Your task to perform on an android device: Clear all items from cart on bestbuy.com. Add jbl charge 4 to the cart on bestbuy.com, then select checkout. Image 0: 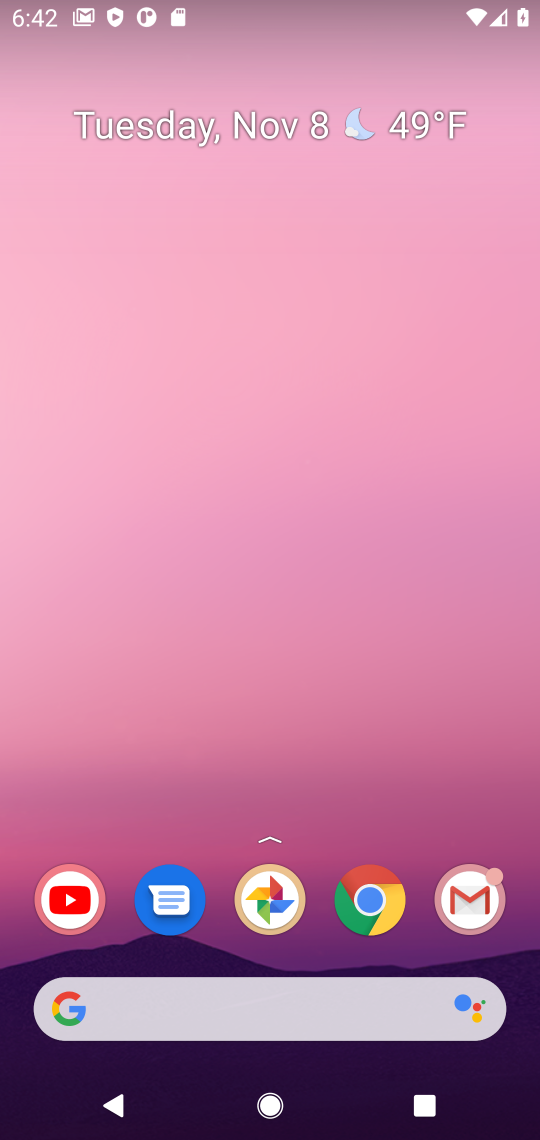
Step 0: click (369, 926)
Your task to perform on an android device: Clear all items from cart on bestbuy.com. Add jbl charge 4 to the cart on bestbuy.com, then select checkout. Image 1: 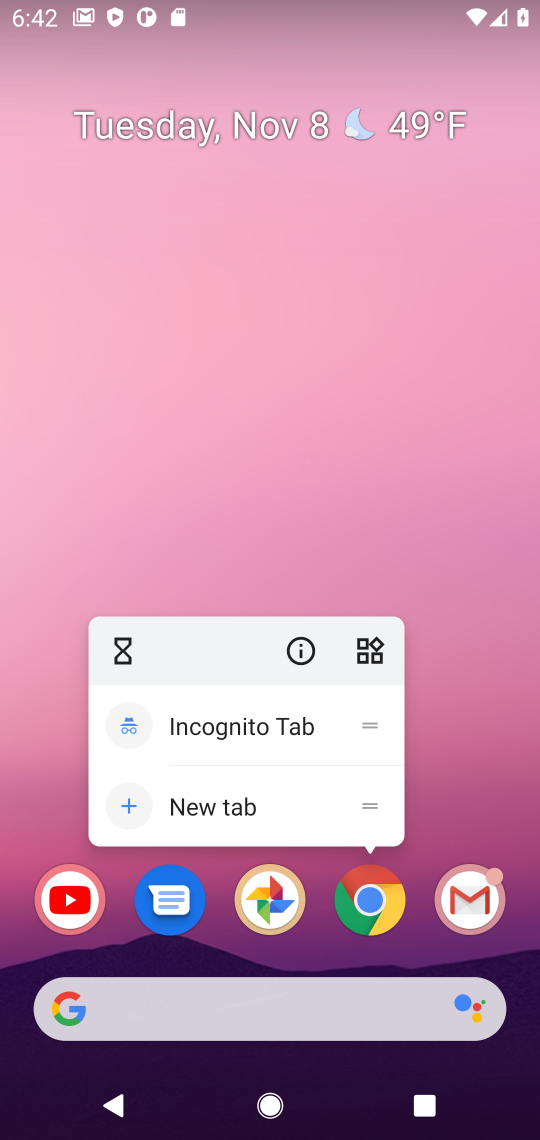
Step 1: click (379, 907)
Your task to perform on an android device: Clear all items from cart on bestbuy.com. Add jbl charge 4 to the cart on bestbuy.com, then select checkout. Image 2: 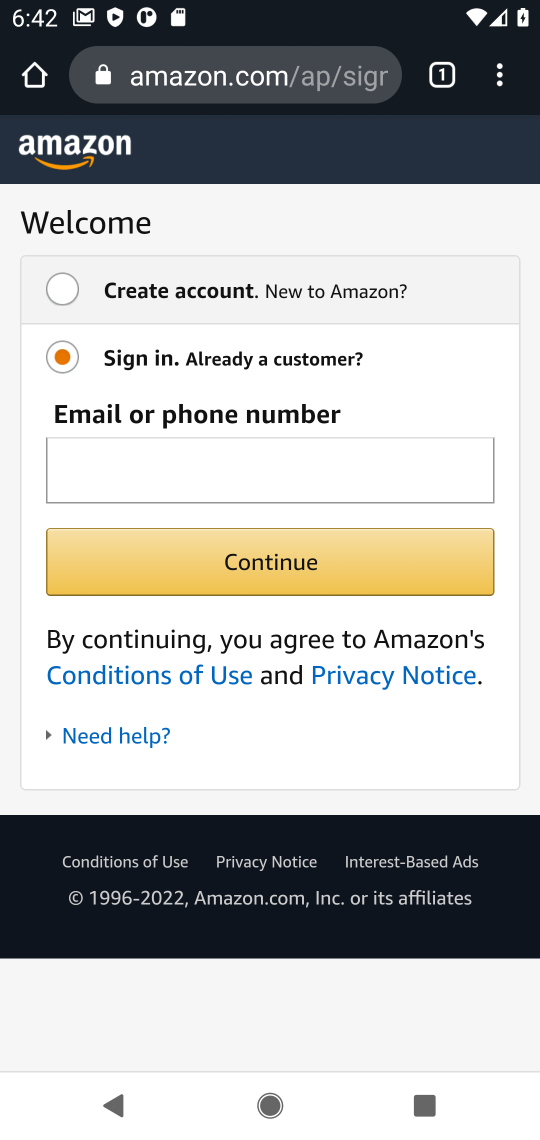
Step 2: click (335, 84)
Your task to perform on an android device: Clear all items from cart on bestbuy.com. Add jbl charge 4 to the cart on bestbuy.com, then select checkout. Image 3: 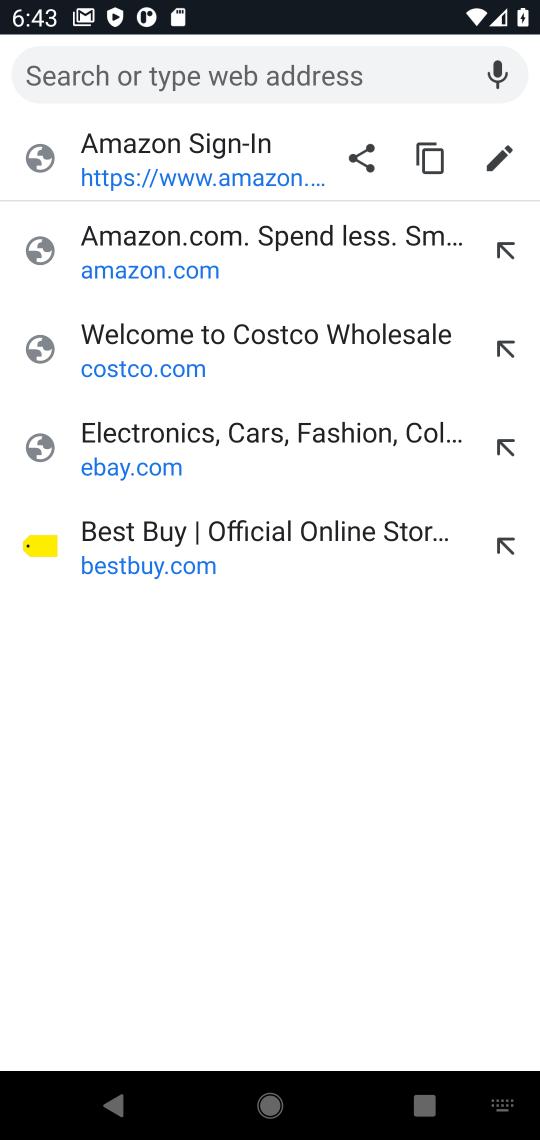
Step 3: type "bestbuy.com"
Your task to perform on an android device: Clear all items from cart on bestbuy.com. Add jbl charge 4 to the cart on bestbuy.com, then select checkout. Image 4: 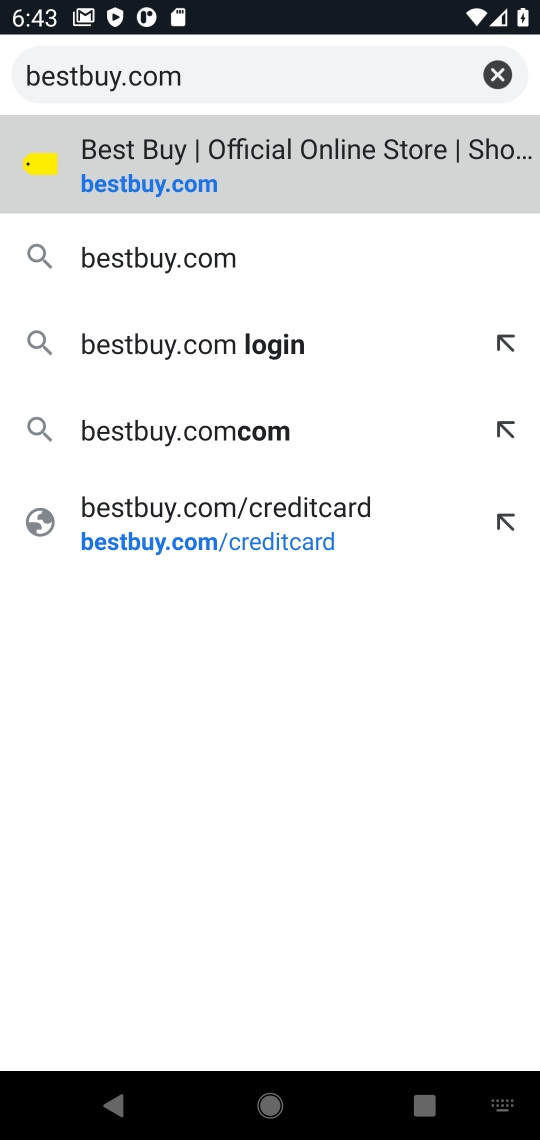
Step 4: press enter
Your task to perform on an android device: Clear all items from cart on bestbuy.com. Add jbl charge 4 to the cart on bestbuy.com, then select checkout. Image 5: 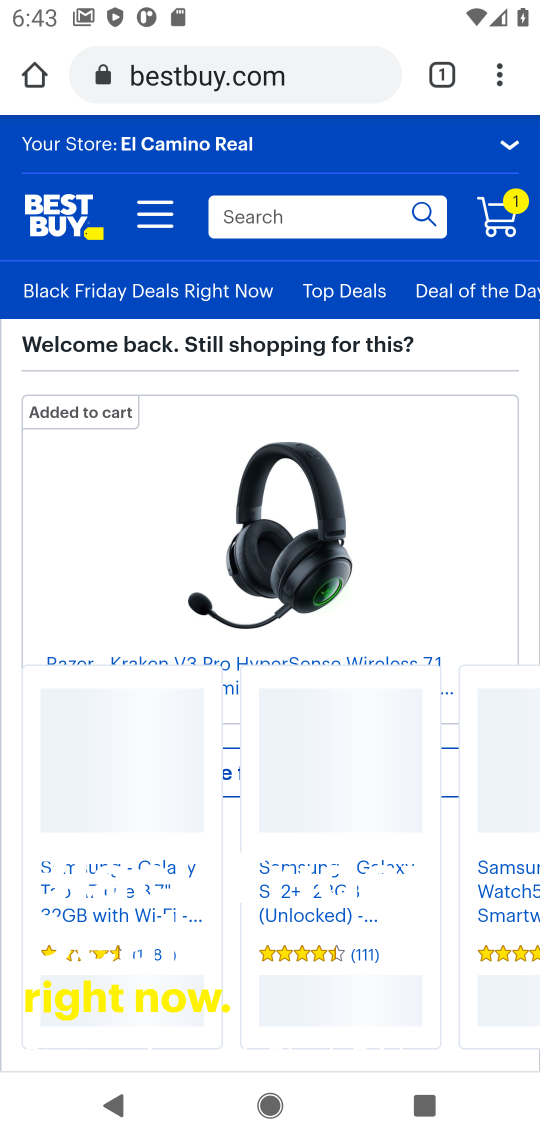
Step 5: click (513, 216)
Your task to perform on an android device: Clear all items from cart on bestbuy.com. Add jbl charge 4 to the cart on bestbuy.com, then select checkout. Image 6: 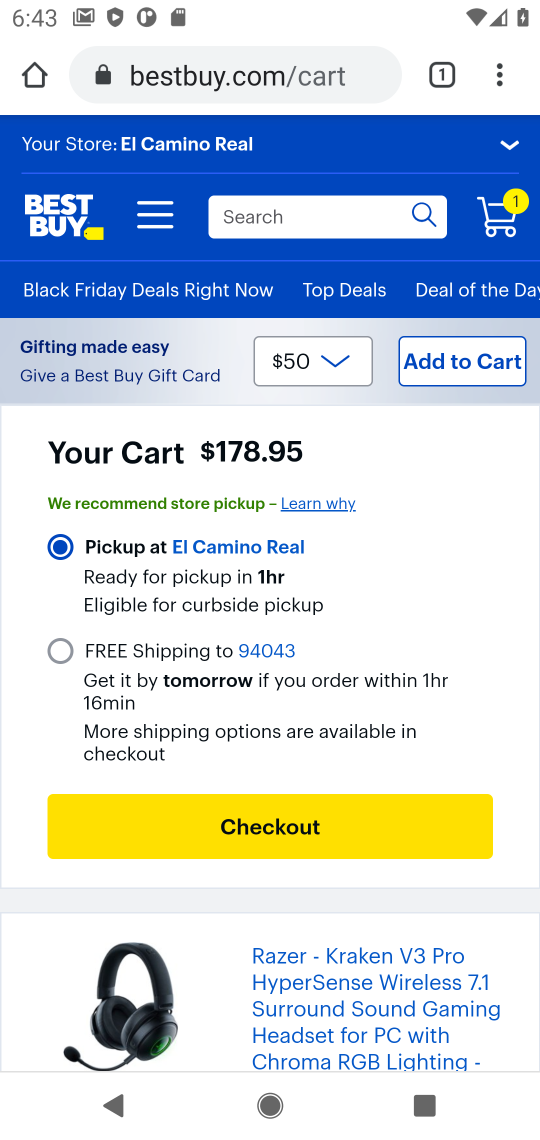
Step 6: drag from (197, 961) to (127, 575)
Your task to perform on an android device: Clear all items from cart on bestbuy.com. Add jbl charge 4 to the cart on bestbuy.com, then select checkout. Image 7: 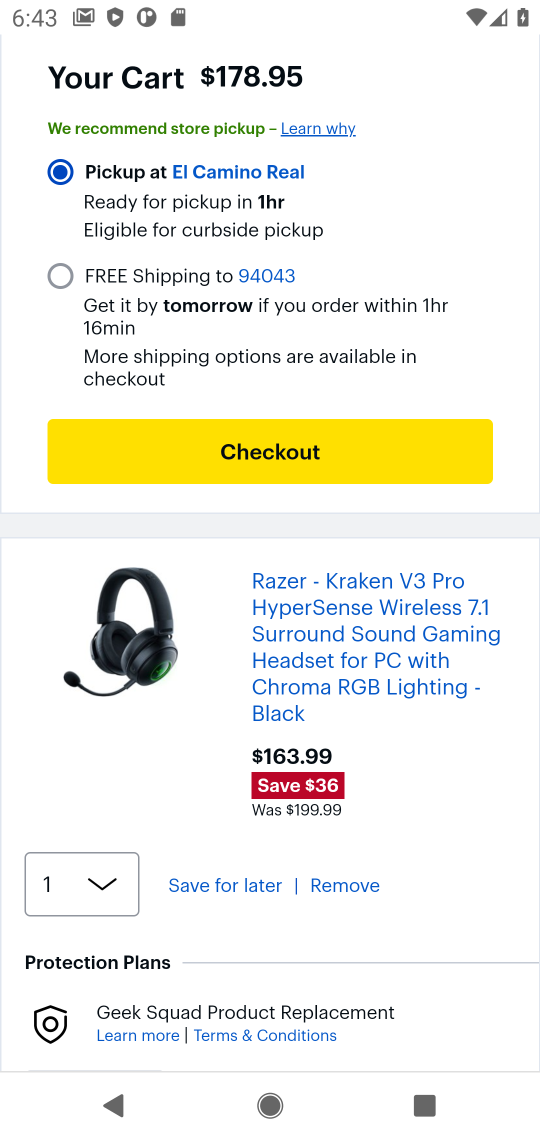
Step 7: click (355, 891)
Your task to perform on an android device: Clear all items from cart on bestbuy.com. Add jbl charge 4 to the cart on bestbuy.com, then select checkout. Image 8: 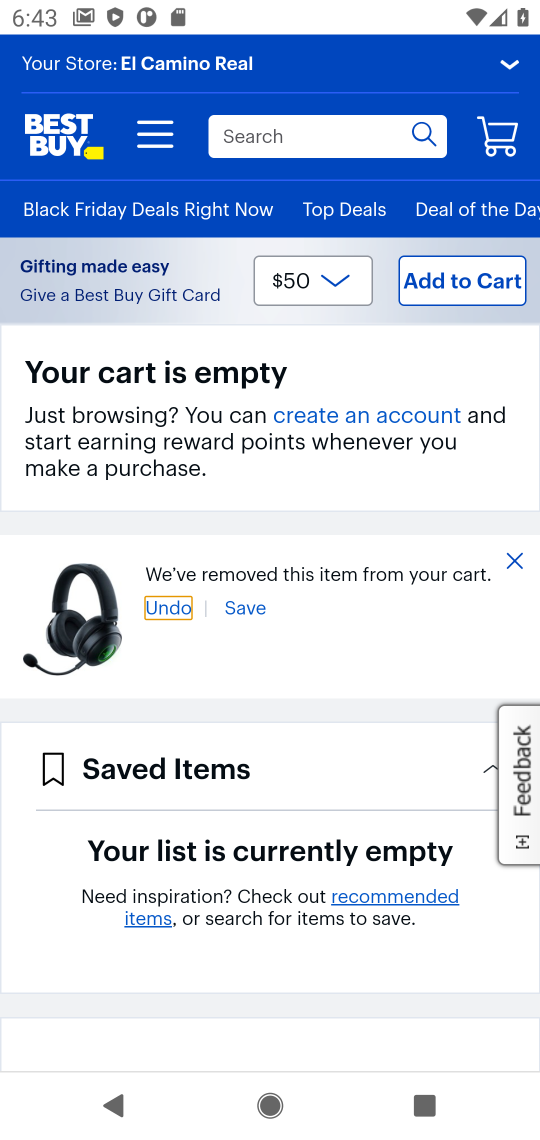
Step 8: drag from (484, 919) to (456, 492)
Your task to perform on an android device: Clear all items from cart on bestbuy.com. Add jbl charge 4 to the cart on bestbuy.com, then select checkout. Image 9: 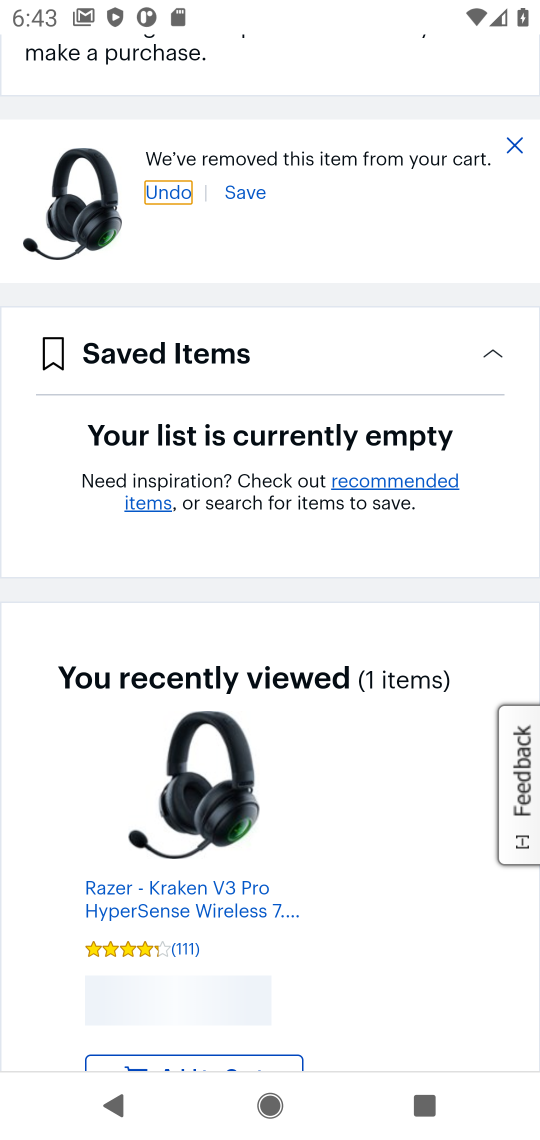
Step 9: drag from (453, 497) to (440, 899)
Your task to perform on an android device: Clear all items from cart on bestbuy.com. Add jbl charge 4 to the cart on bestbuy.com, then select checkout. Image 10: 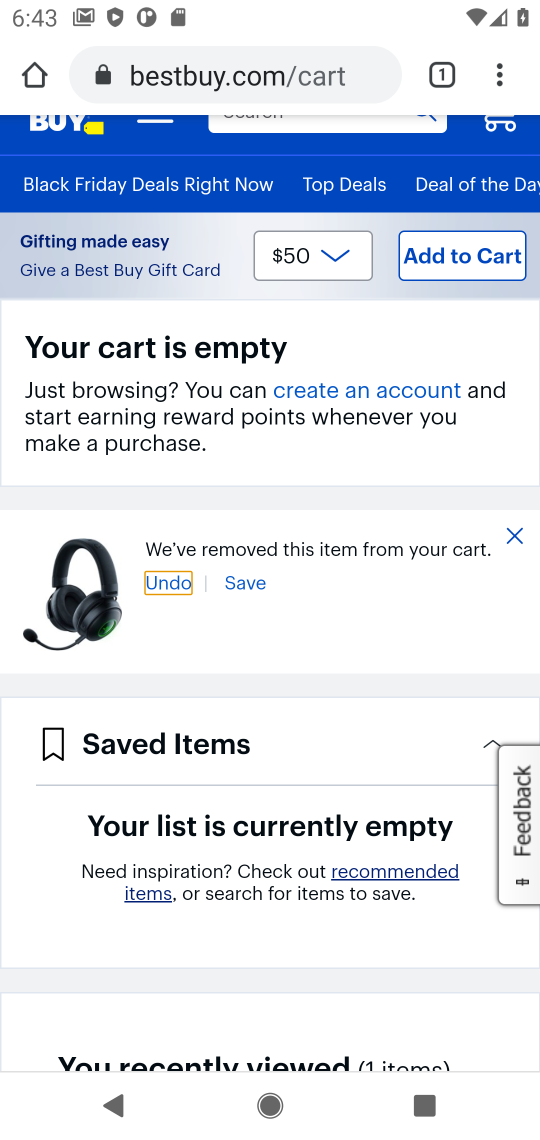
Step 10: drag from (296, 339) to (296, 473)
Your task to perform on an android device: Clear all items from cart on bestbuy.com. Add jbl charge 4 to the cart on bestbuy.com, then select checkout. Image 11: 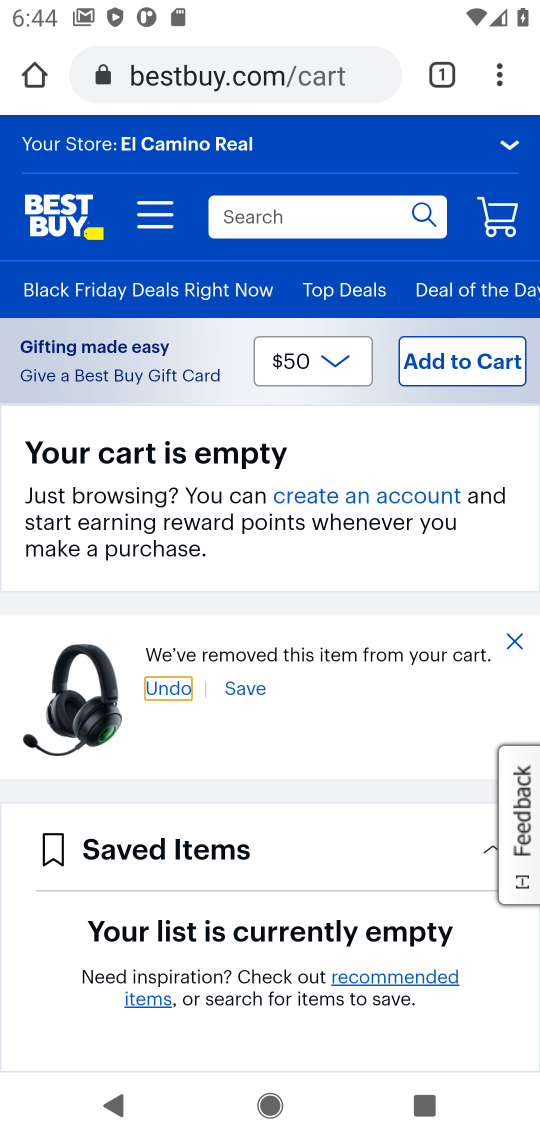
Step 11: click (321, 206)
Your task to perform on an android device: Clear all items from cart on bestbuy.com. Add jbl charge 4 to the cart on bestbuy.com, then select checkout. Image 12: 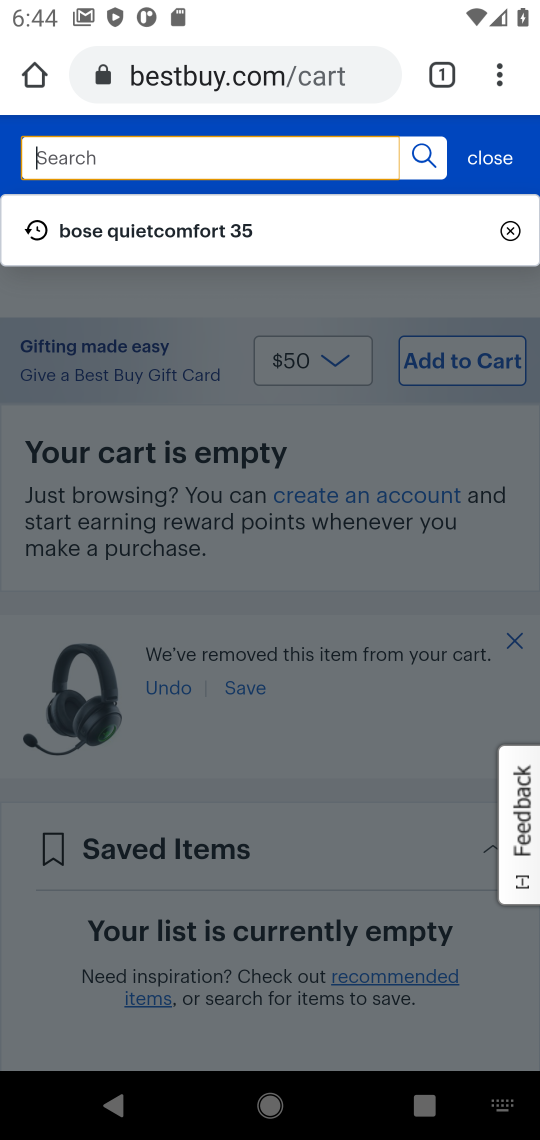
Step 12: type "jbl charge 4"
Your task to perform on an android device: Clear all items from cart on bestbuy.com. Add jbl charge 4 to the cart on bestbuy.com, then select checkout. Image 13: 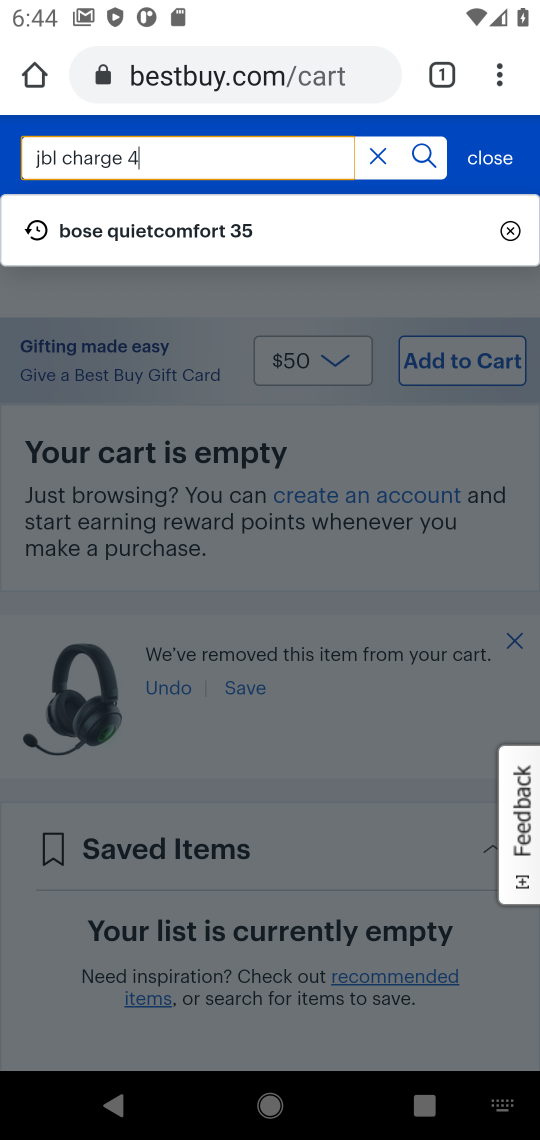
Step 13: type ""
Your task to perform on an android device: Clear all items from cart on bestbuy.com. Add jbl charge 4 to the cart on bestbuy.com, then select checkout. Image 14: 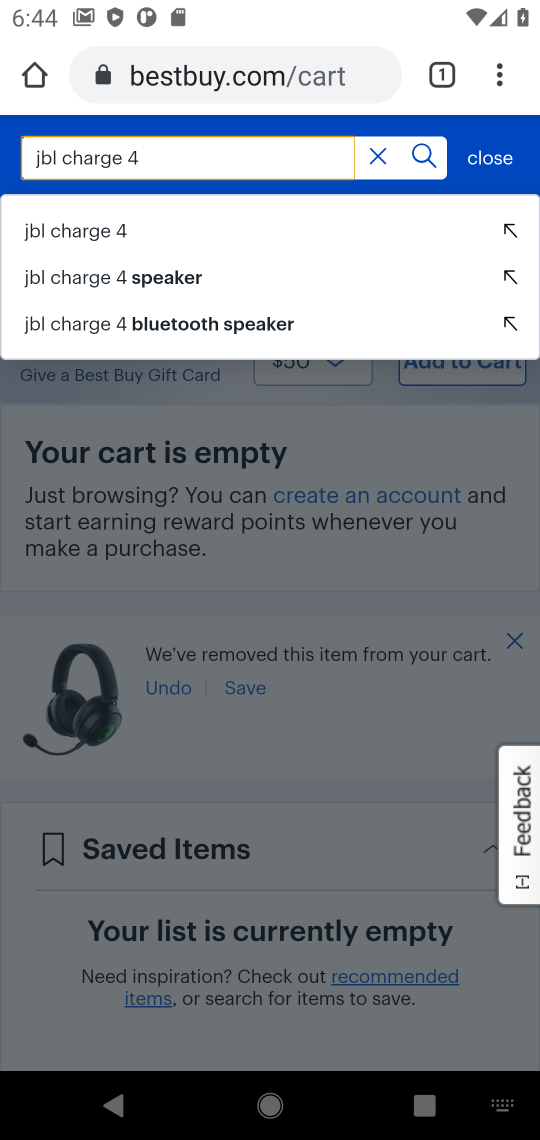
Step 14: press enter
Your task to perform on an android device: Clear all items from cart on bestbuy.com. Add jbl charge 4 to the cart on bestbuy.com, then select checkout. Image 15: 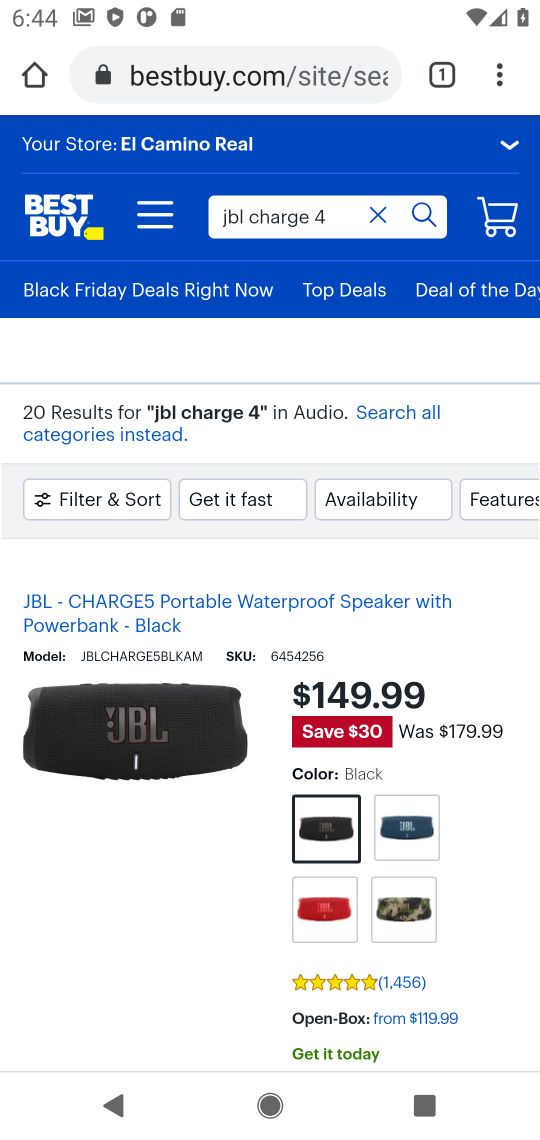
Step 15: drag from (162, 863) to (168, 749)
Your task to perform on an android device: Clear all items from cart on bestbuy.com. Add jbl charge 4 to the cart on bestbuy.com, then select checkout. Image 16: 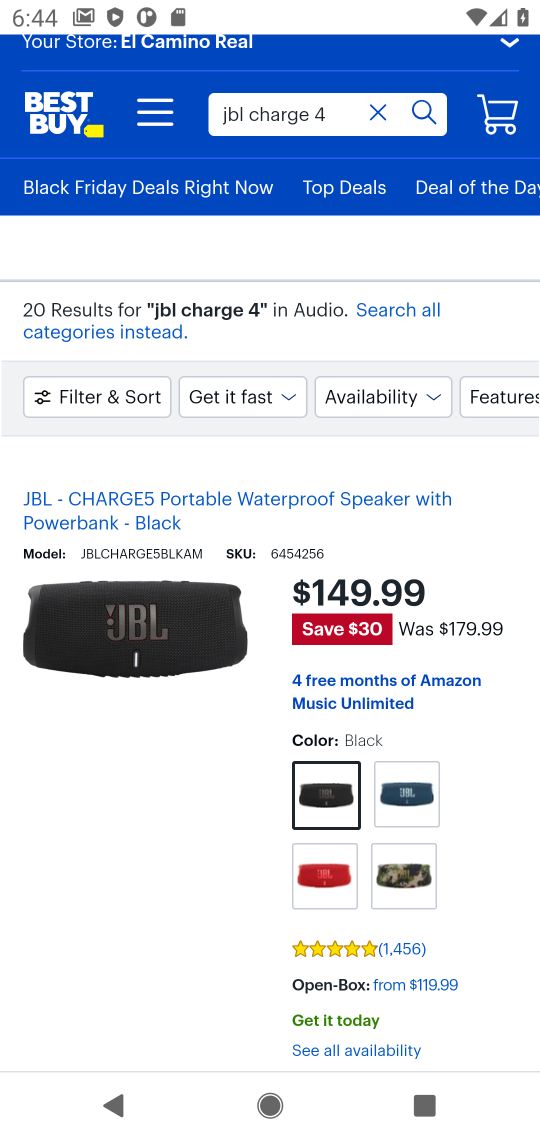
Step 16: drag from (156, 695) to (69, 894)
Your task to perform on an android device: Clear all items from cart on bestbuy.com. Add jbl charge 4 to the cart on bestbuy.com, then select checkout. Image 17: 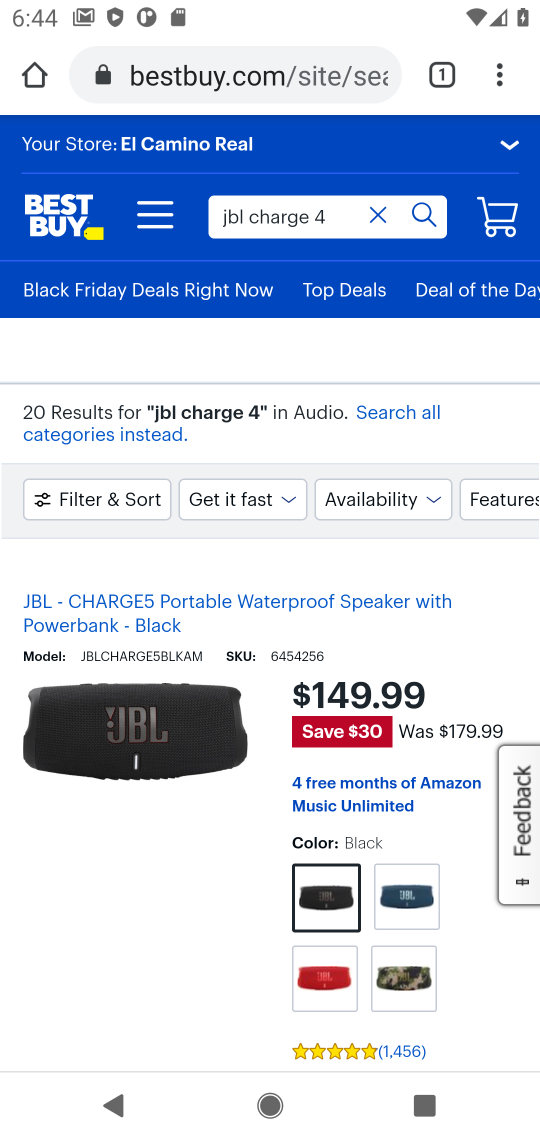
Step 17: drag from (365, 950) to (353, 817)
Your task to perform on an android device: Clear all items from cart on bestbuy.com. Add jbl charge 4 to the cart on bestbuy.com, then select checkout. Image 18: 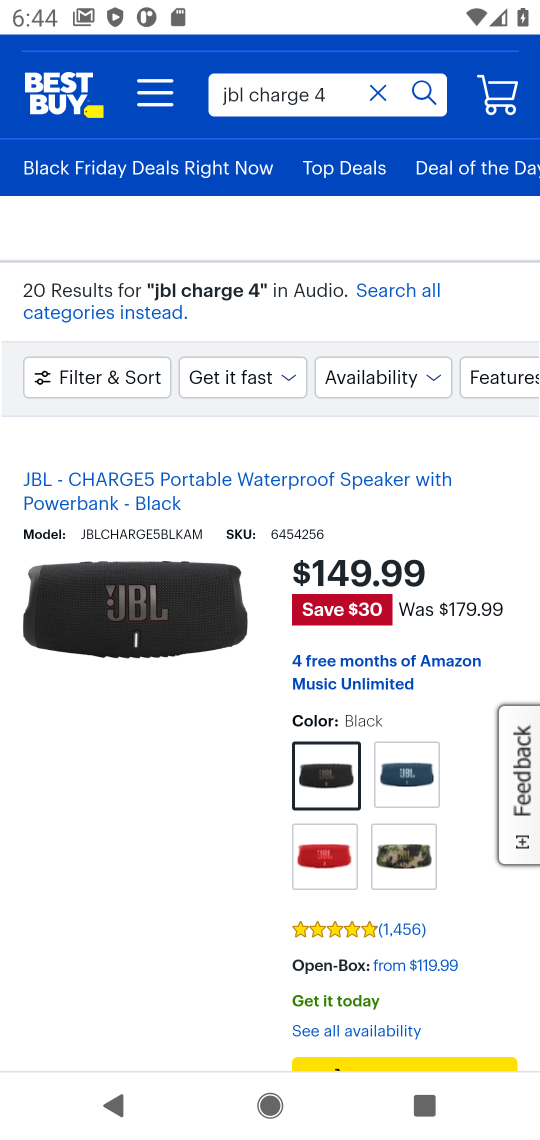
Step 18: drag from (422, 991) to (414, 875)
Your task to perform on an android device: Clear all items from cart on bestbuy.com. Add jbl charge 4 to the cart on bestbuy.com, then select checkout. Image 19: 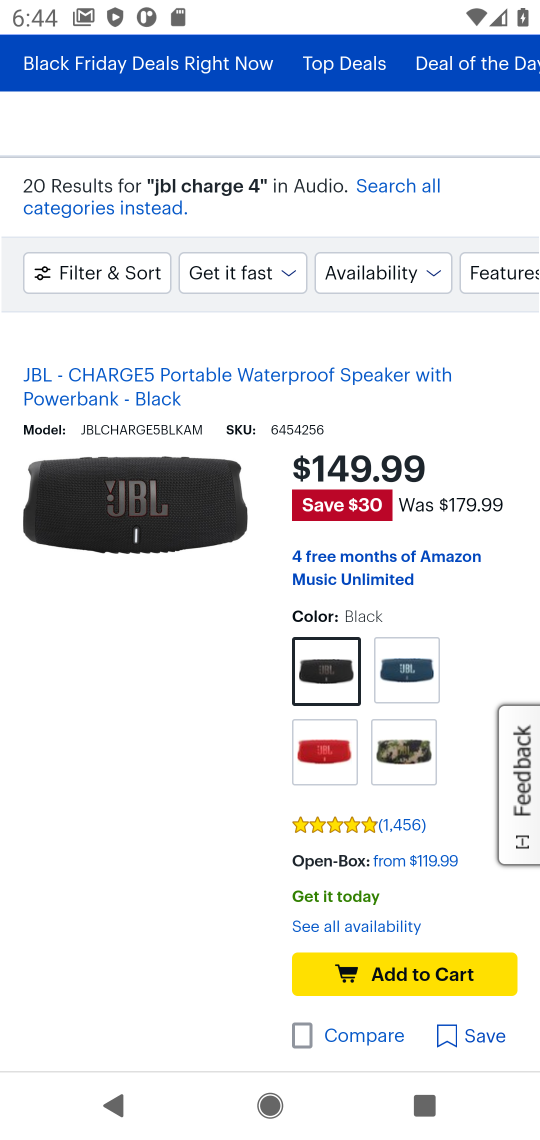
Step 19: click (405, 974)
Your task to perform on an android device: Clear all items from cart on bestbuy.com. Add jbl charge 4 to the cart on bestbuy.com, then select checkout. Image 20: 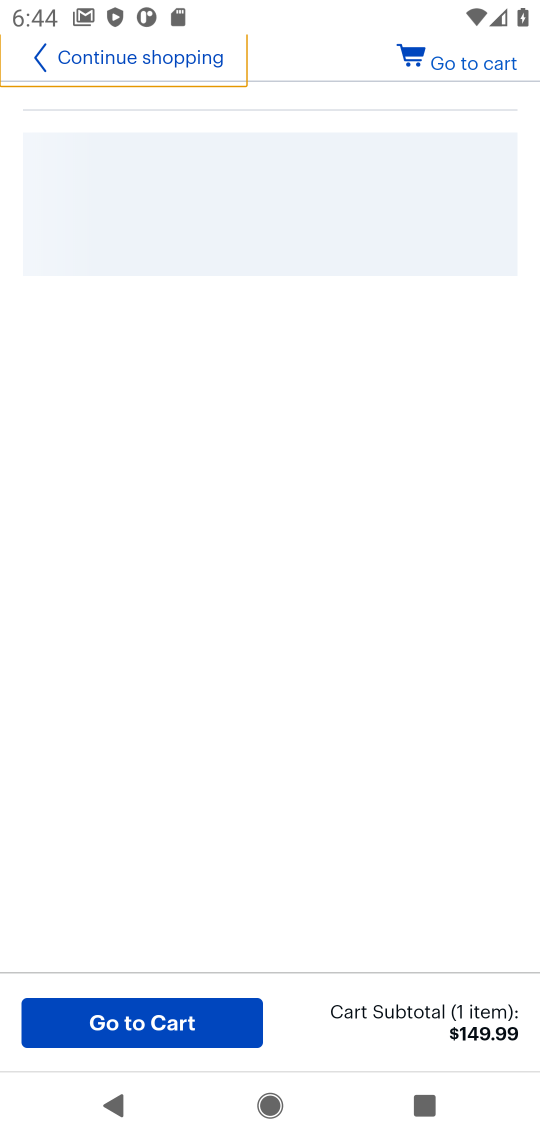
Step 20: click (218, 1013)
Your task to perform on an android device: Clear all items from cart on bestbuy.com. Add jbl charge 4 to the cart on bestbuy.com, then select checkout. Image 21: 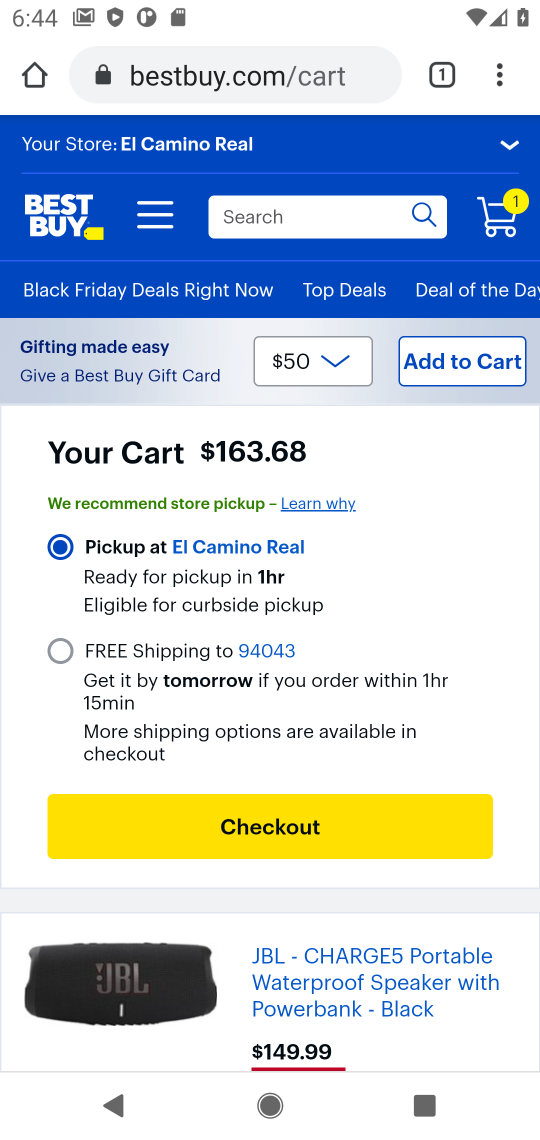
Step 21: click (170, 841)
Your task to perform on an android device: Clear all items from cart on bestbuy.com. Add jbl charge 4 to the cart on bestbuy.com, then select checkout. Image 22: 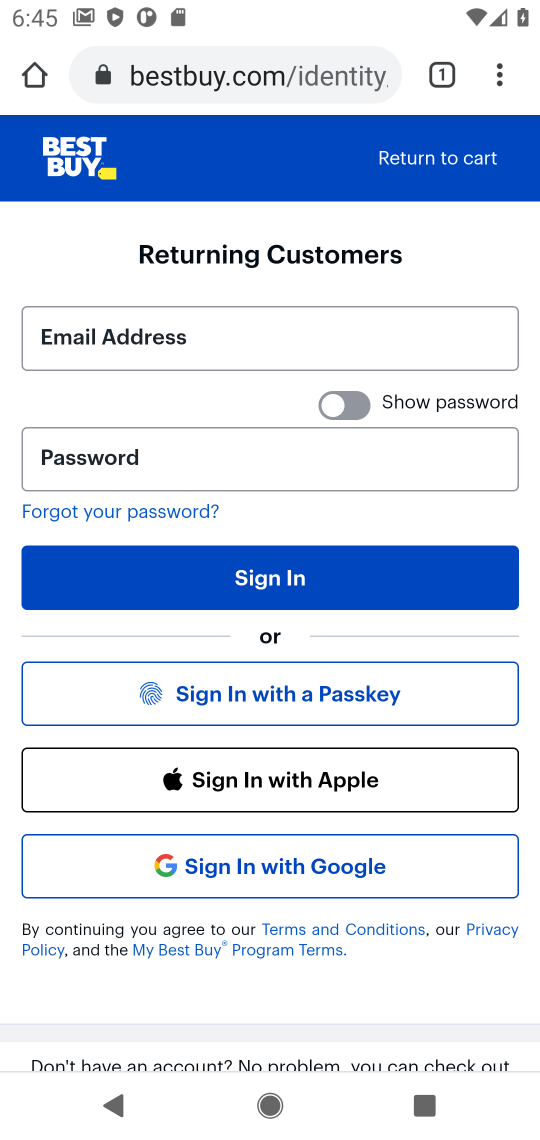
Step 22: task complete